Your task to perform on an android device: Go to settings Image 0: 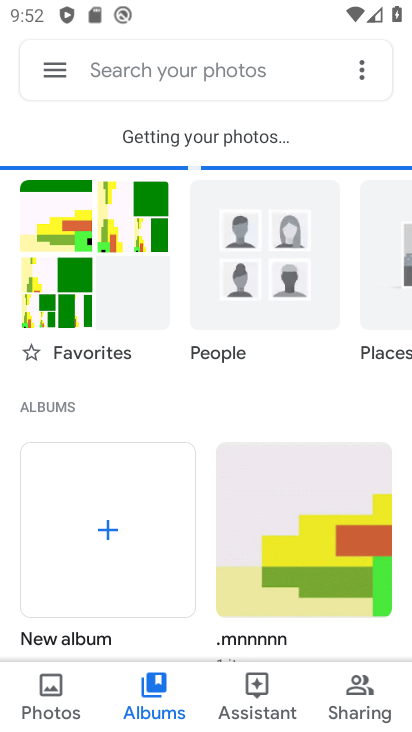
Step 0: press home button
Your task to perform on an android device: Go to settings Image 1: 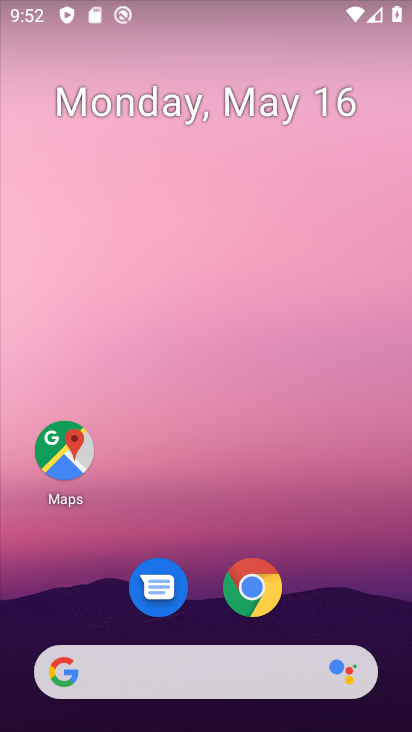
Step 1: drag from (199, 605) to (95, 50)
Your task to perform on an android device: Go to settings Image 2: 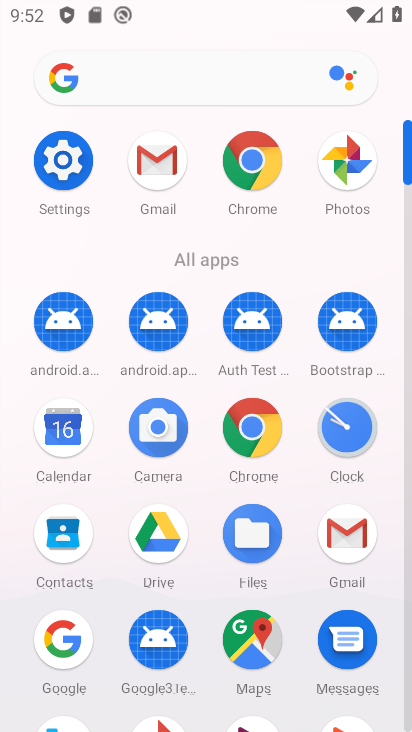
Step 2: click (65, 163)
Your task to perform on an android device: Go to settings Image 3: 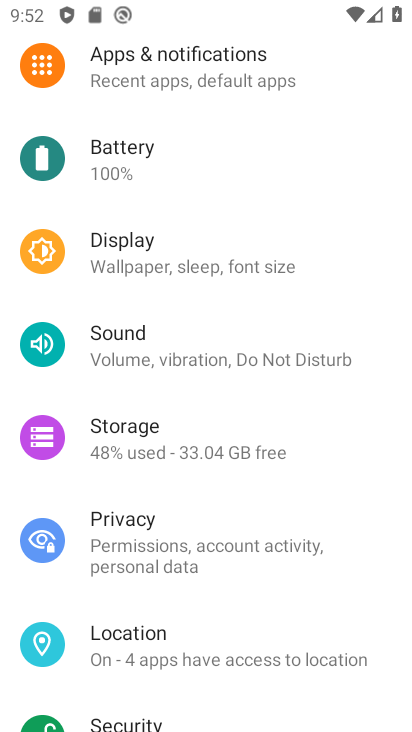
Step 3: task complete